Your task to perform on an android device: see creations saved in the google photos Image 0: 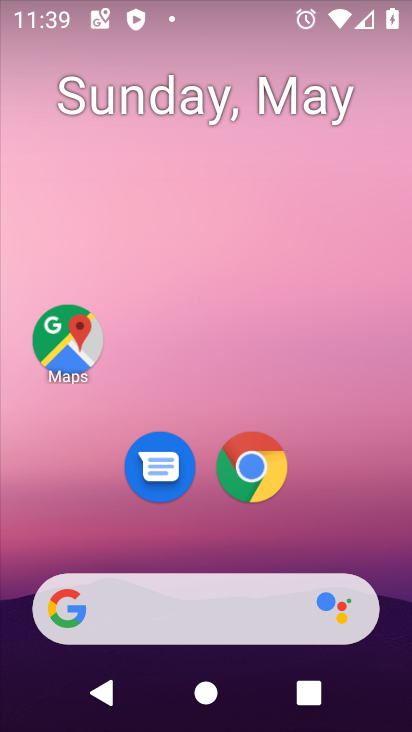
Step 0: drag from (336, 524) to (354, 15)
Your task to perform on an android device: see creations saved in the google photos Image 1: 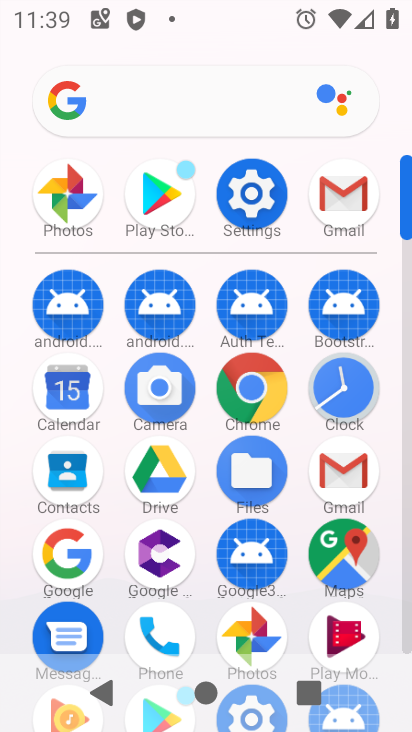
Step 1: click (64, 193)
Your task to perform on an android device: see creations saved in the google photos Image 2: 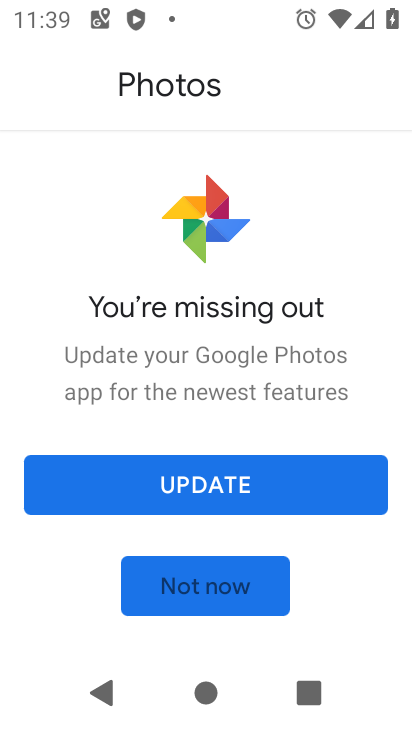
Step 2: click (201, 574)
Your task to perform on an android device: see creations saved in the google photos Image 3: 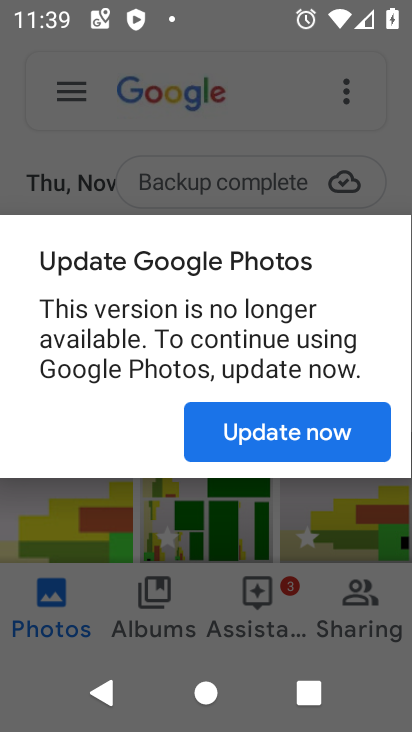
Step 3: click (300, 433)
Your task to perform on an android device: see creations saved in the google photos Image 4: 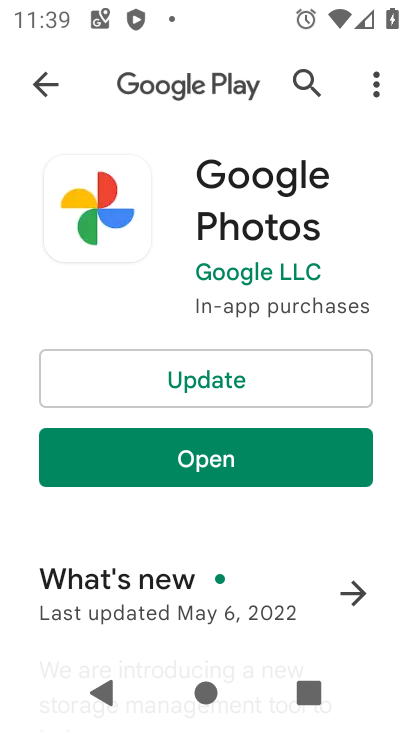
Step 4: click (191, 463)
Your task to perform on an android device: see creations saved in the google photos Image 5: 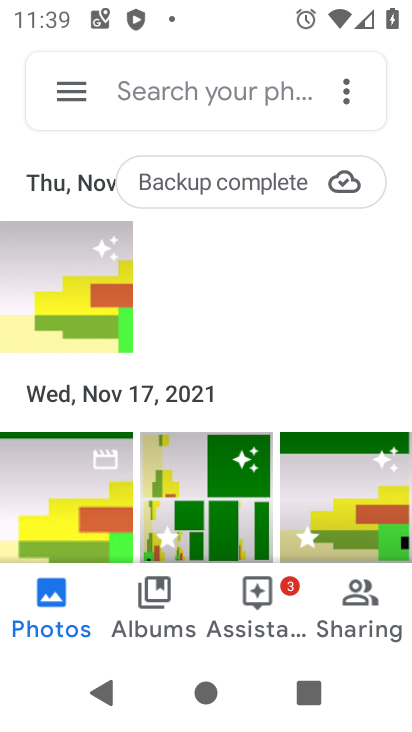
Step 5: click (138, 86)
Your task to perform on an android device: see creations saved in the google photos Image 6: 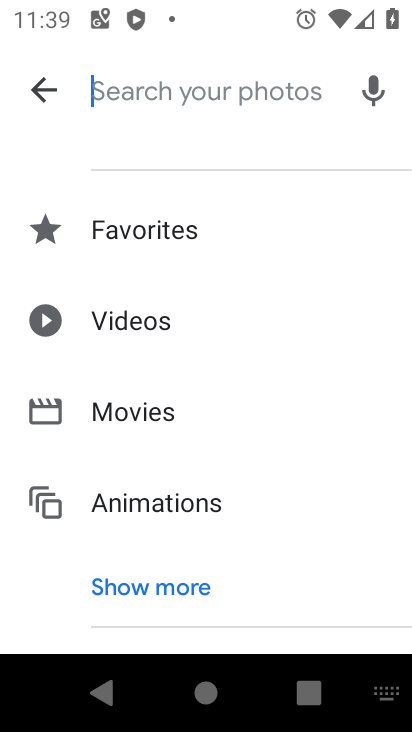
Step 6: click (106, 580)
Your task to perform on an android device: see creations saved in the google photos Image 7: 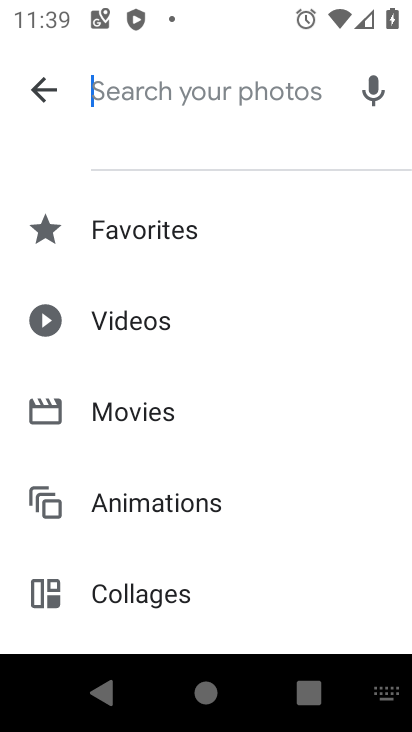
Step 7: drag from (230, 582) to (241, 251)
Your task to perform on an android device: see creations saved in the google photos Image 8: 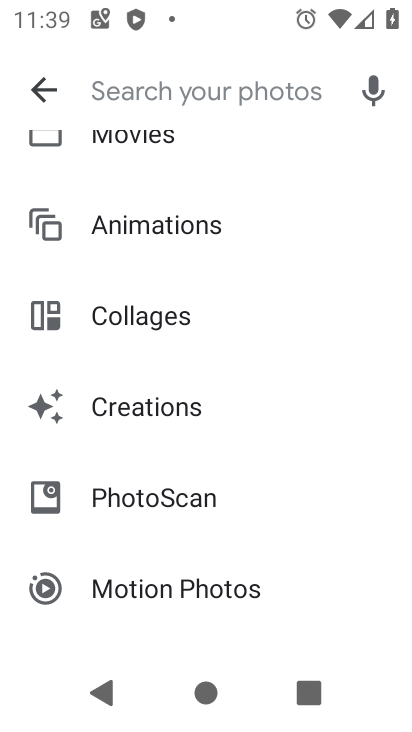
Step 8: click (119, 412)
Your task to perform on an android device: see creations saved in the google photos Image 9: 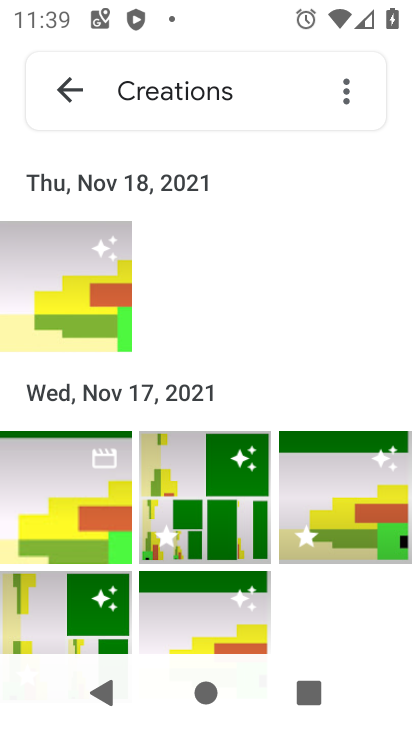
Step 9: task complete